Your task to perform on an android device: see tabs open on other devices in the chrome app Image 0: 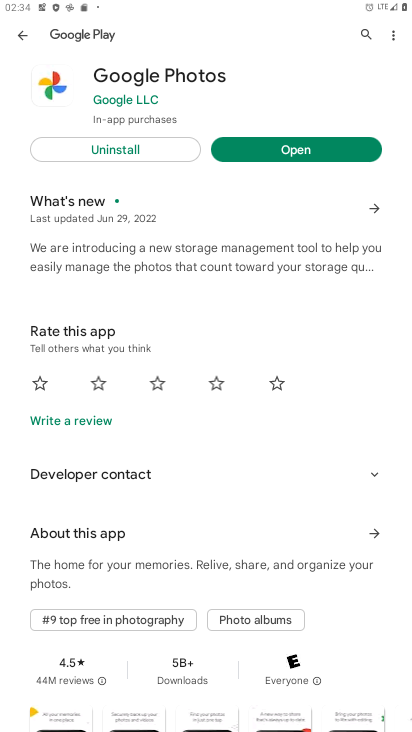
Step 0: press home button
Your task to perform on an android device: see tabs open on other devices in the chrome app Image 1: 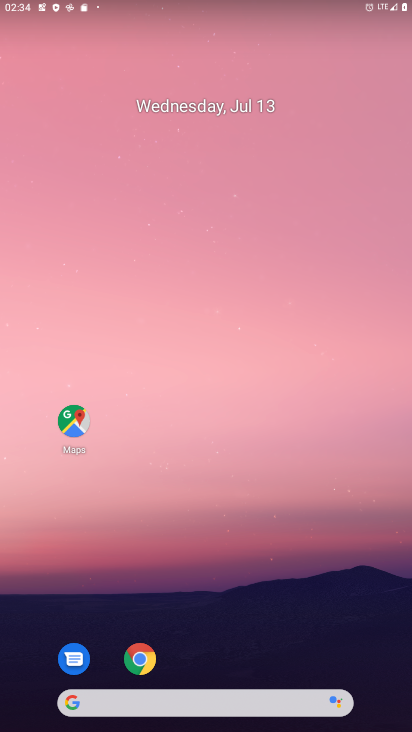
Step 1: click (137, 658)
Your task to perform on an android device: see tabs open on other devices in the chrome app Image 2: 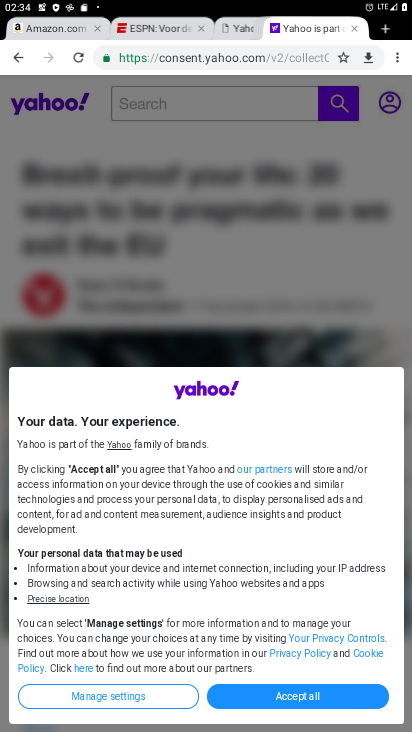
Step 2: click (396, 61)
Your task to perform on an android device: see tabs open on other devices in the chrome app Image 3: 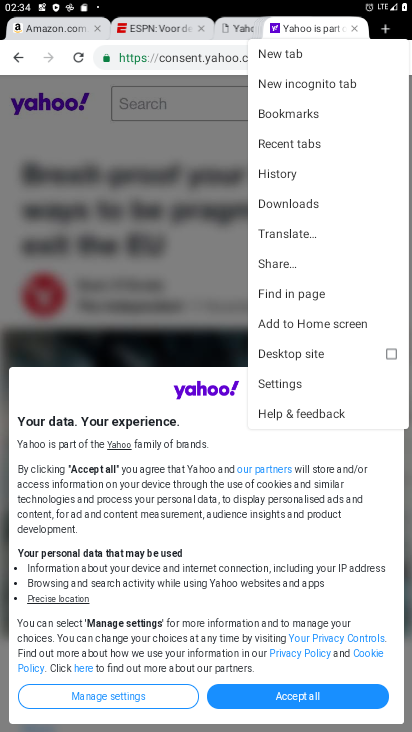
Step 3: click (290, 142)
Your task to perform on an android device: see tabs open on other devices in the chrome app Image 4: 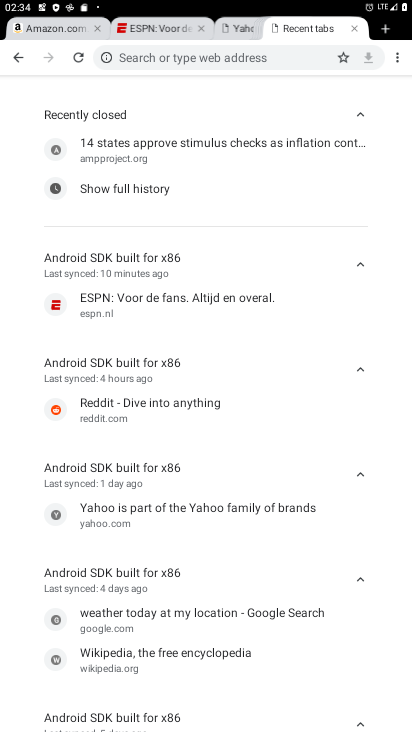
Step 4: task complete